Your task to perform on an android device: turn on bluetooth scan Image 0: 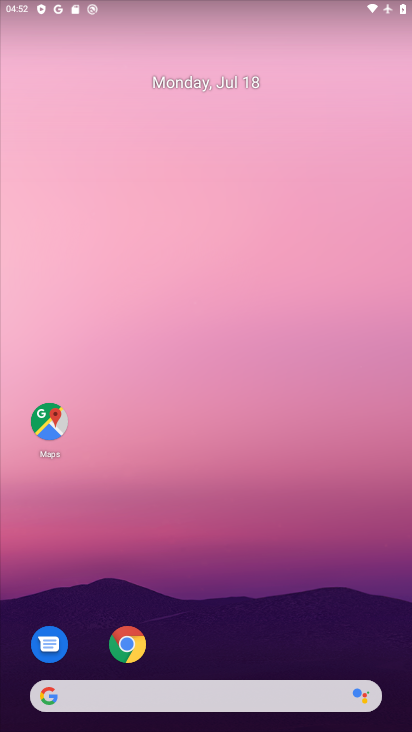
Step 0: press home button
Your task to perform on an android device: turn on bluetooth scan Image 1: 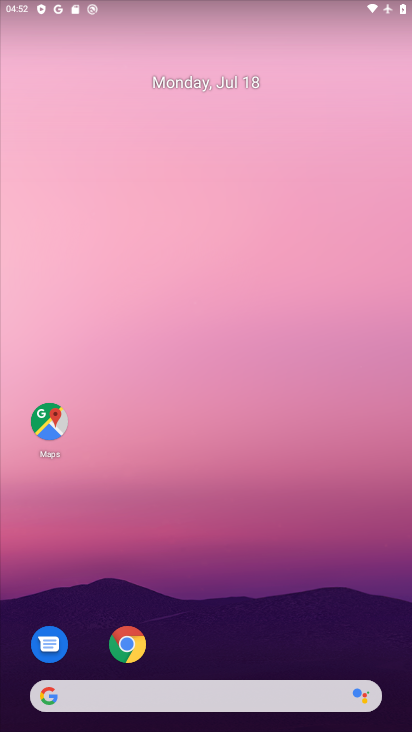
Step 1: drag from (241, 645) to (279, 96)
Your task to perform on an android device: turn on bluetooth scan Image 2: 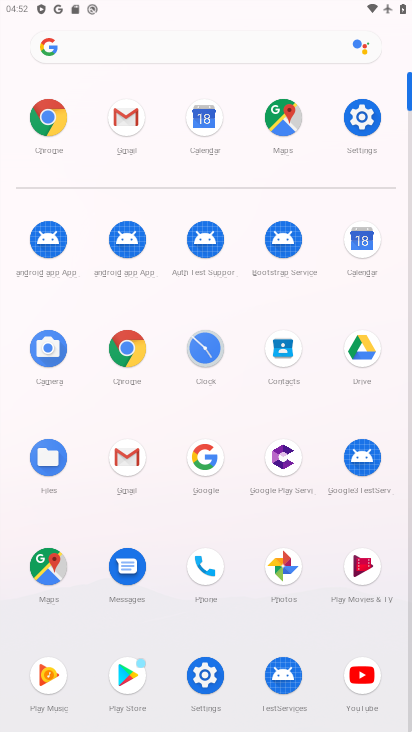
Step 2: click (351, 135)
Your task to perform on an android device: turn on bluetooth scan Image 3: 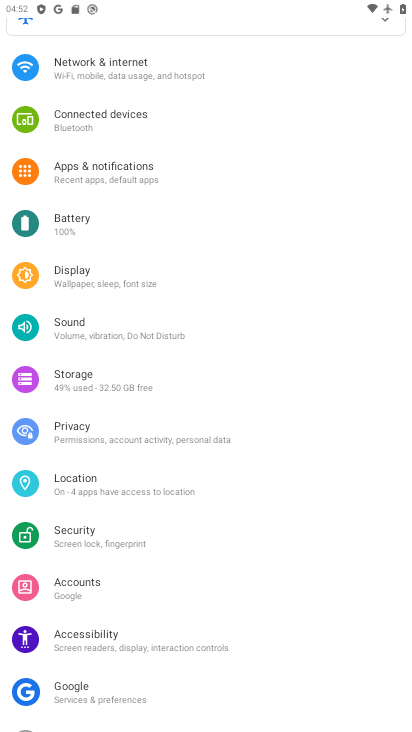
Step 3: click (88, 483)
Your task to perform on an android device: turn on bluetooth scan Image 4: 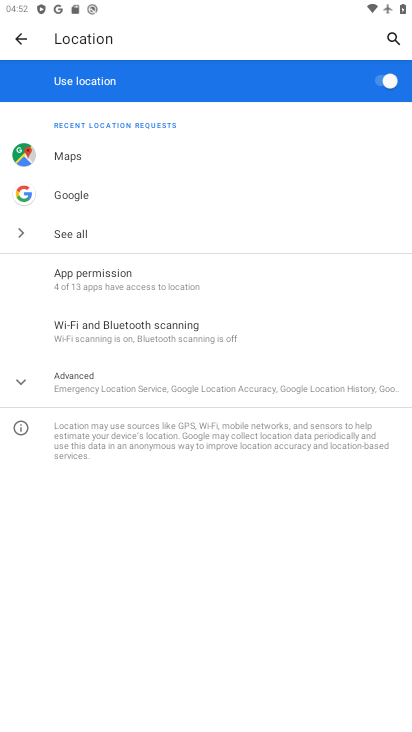
Step 4: click (115, 336)
Your task to perform on an android device: turn on bluetooth scan Image 5: 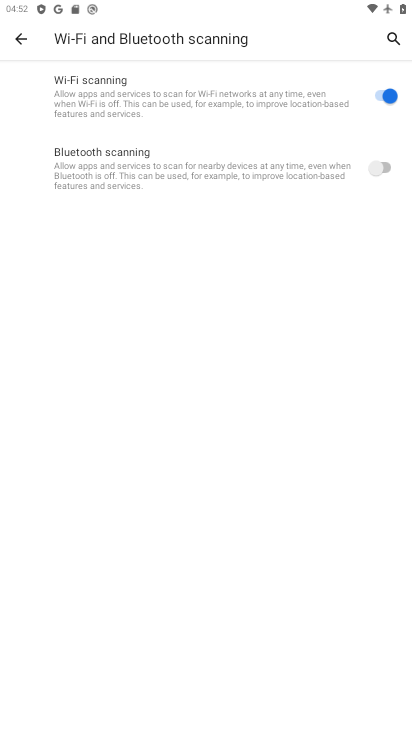
Step 5: click (385, 160)
Your task to perform on an android device: turn on bluetooth scan Image 6: 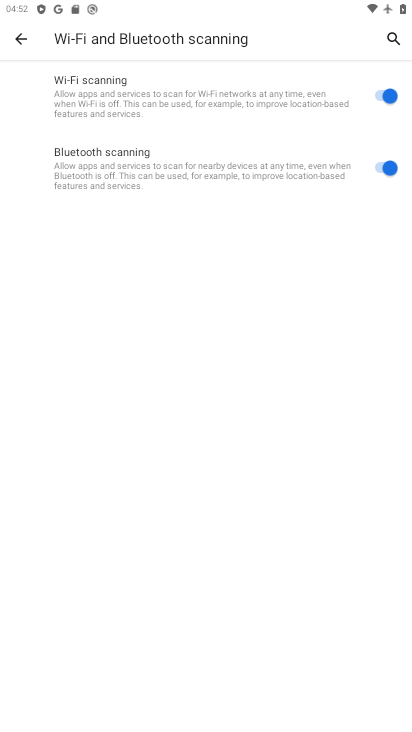
Step 6: task complete